Your task to perform on an android device: What's the weather? Image 0: 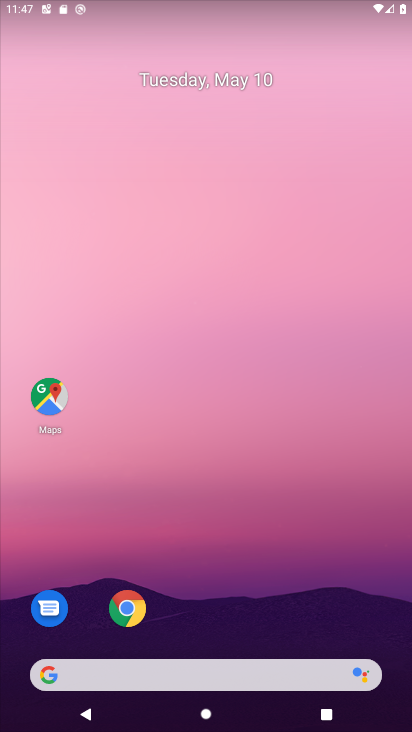
Step 0: drag from (22, 252) to (386, 101)
Your task to perform on an android device: What's the weather? Image 1: 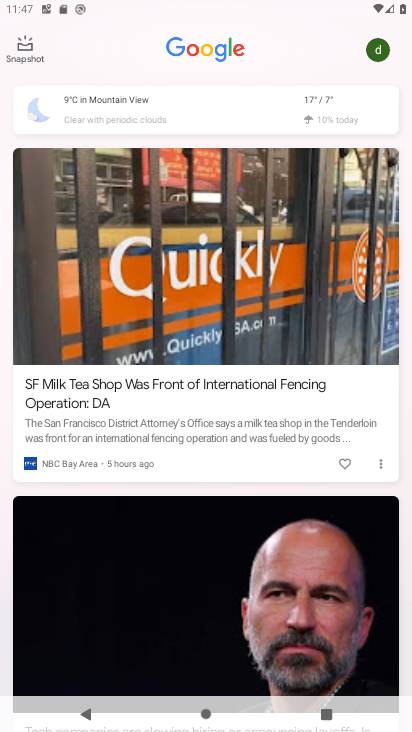
Step 1: click (47, 106)
Your task to perform on an android device: What's the weather? Image 2: 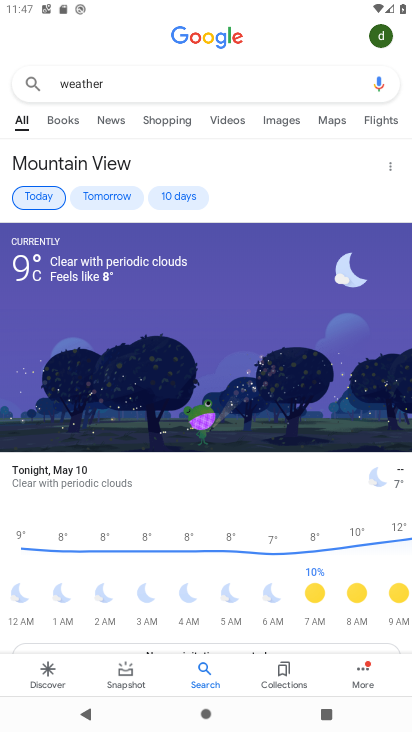
Step 2: task complete